Your task to perform on an android device: visit the assistant section in the google photos Image 0: 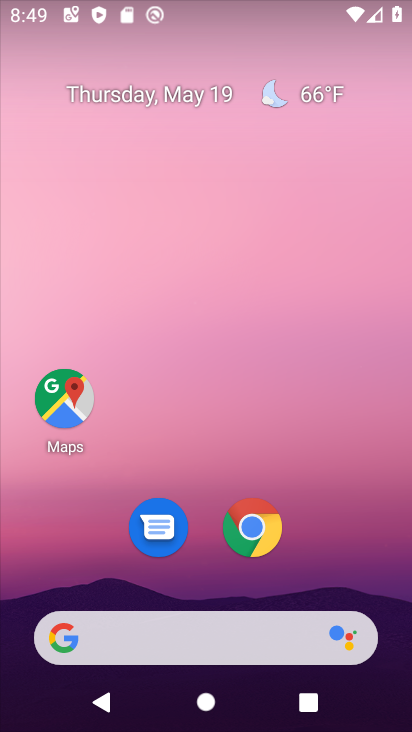
Step 0: drag from (294, 549) to (249, 41)
Your task to perform on an android device: visit the assistant section in the google photos Image 1: 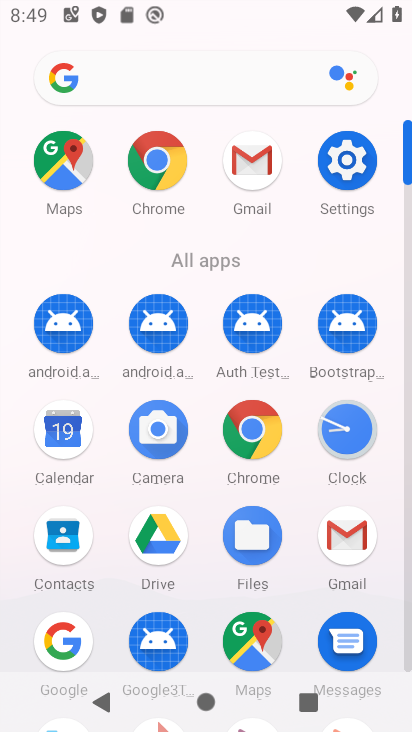
Step 1: drag from (220, 575) to (166, 166)
Your task to perform on an android device: visit the assistant section in the google photos Image 2: 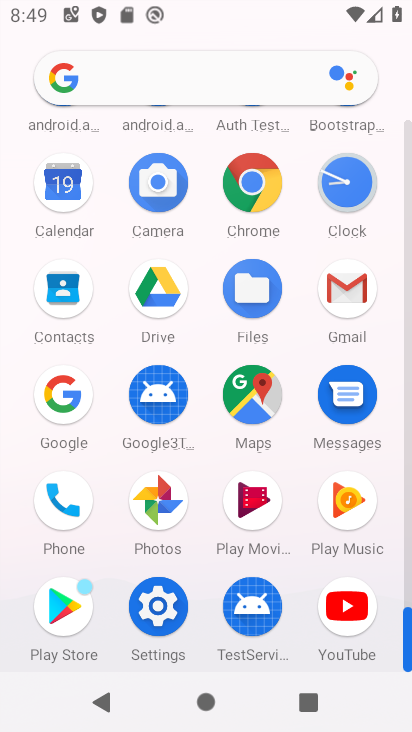
Step 2: click (164, 505)
Your task to perform on an android device: visit the assistant section in the google photos Image 3: 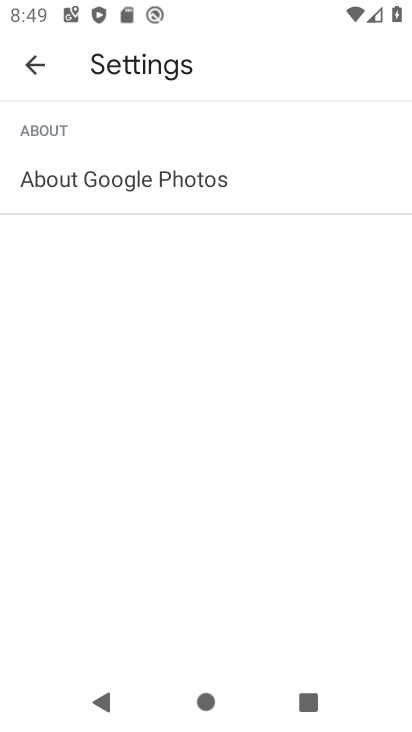
Step 3: click (30, 56)
Your task to perform on an android device: visit the assistant section in the google photos Image 4: 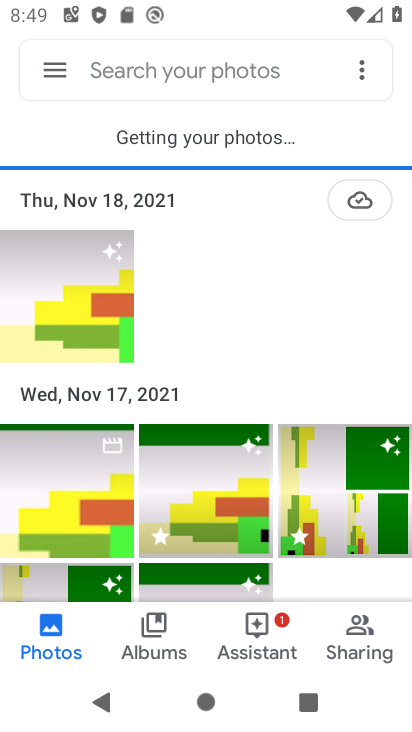
Step 4: click (252, 652)
Your task to perform on an android device: visit the assistant section in the google photos Image 5: 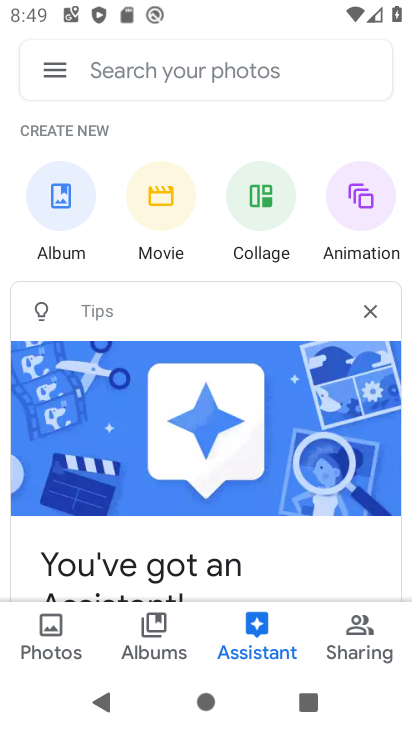
Step 5: task complete